Your task to perform on an android device: install app "Calculator" Image 0: 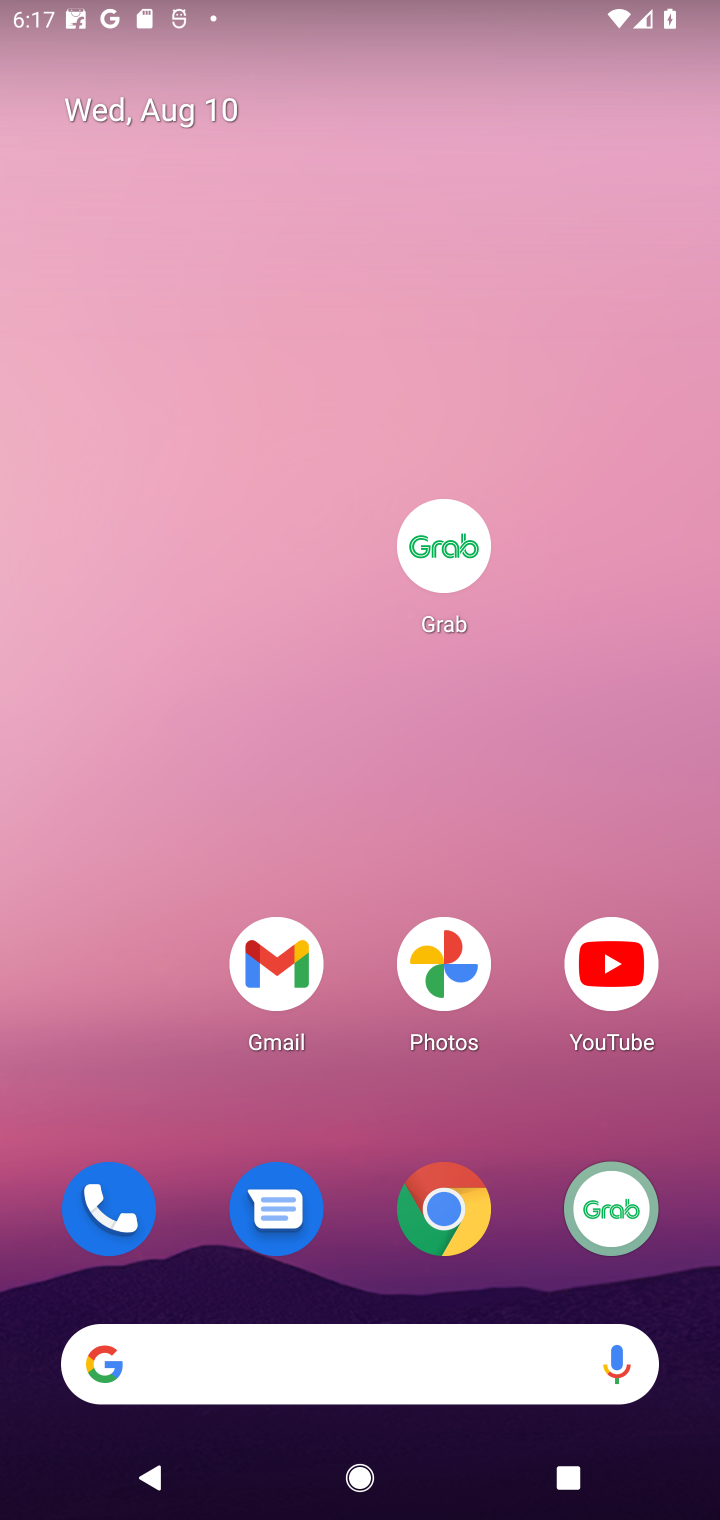
Step 0: drag from (552, 1274) to (464, 148)
Your task to perform on an android device: install app "Calculator" Image 1: 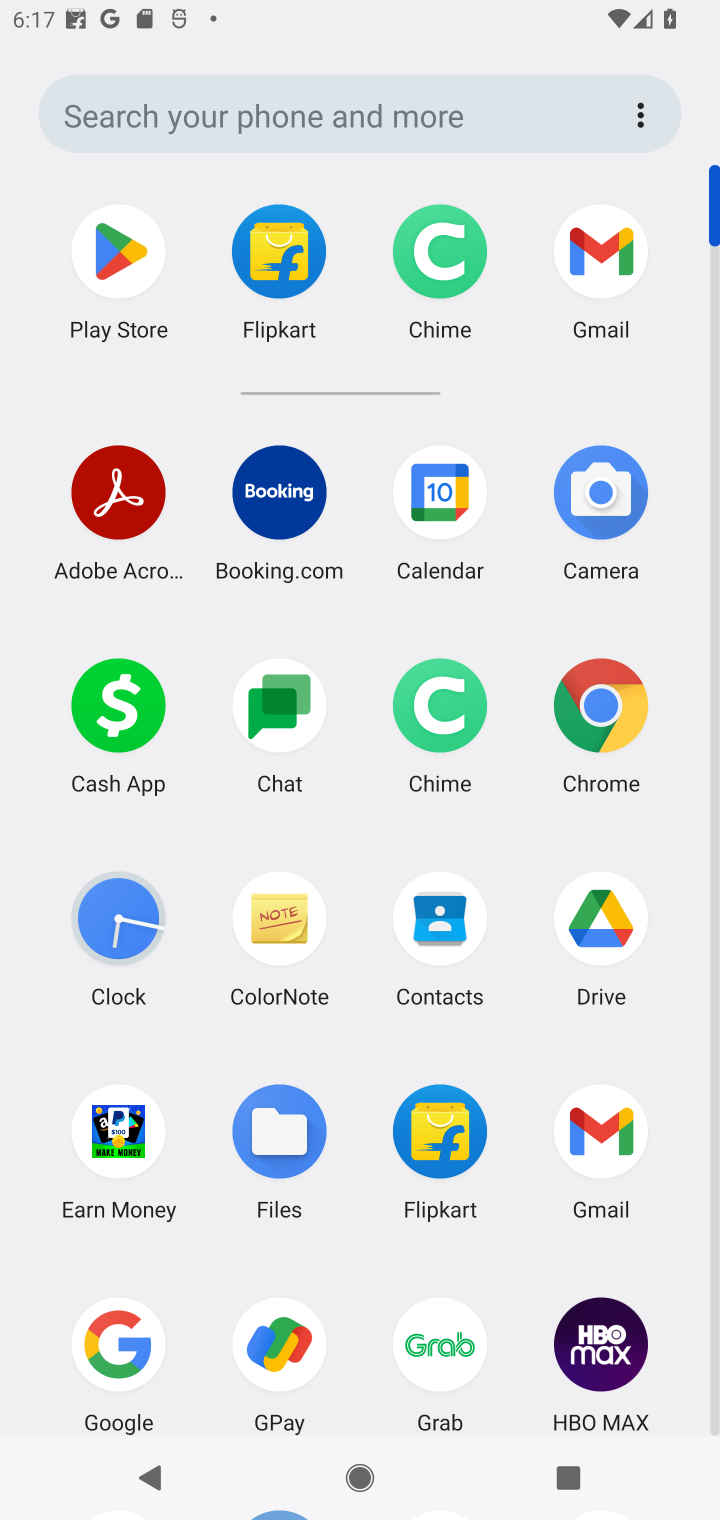
Step 1: click (144, 256)
Your task to perform on an android device: install app "Calculator" Image 2: 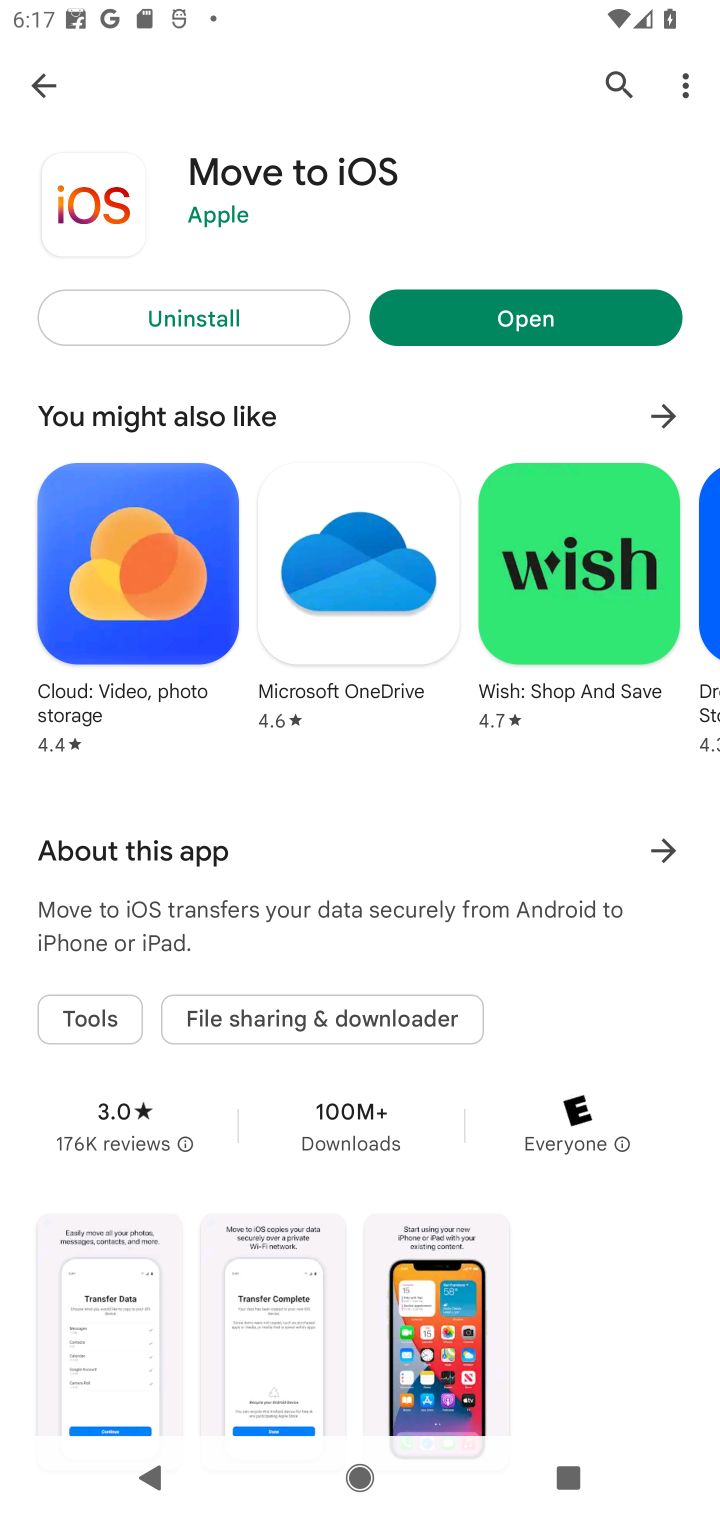
Step 2: click (608, 79)
Your task to perform on an android device: install app "Calculator" Image 3: 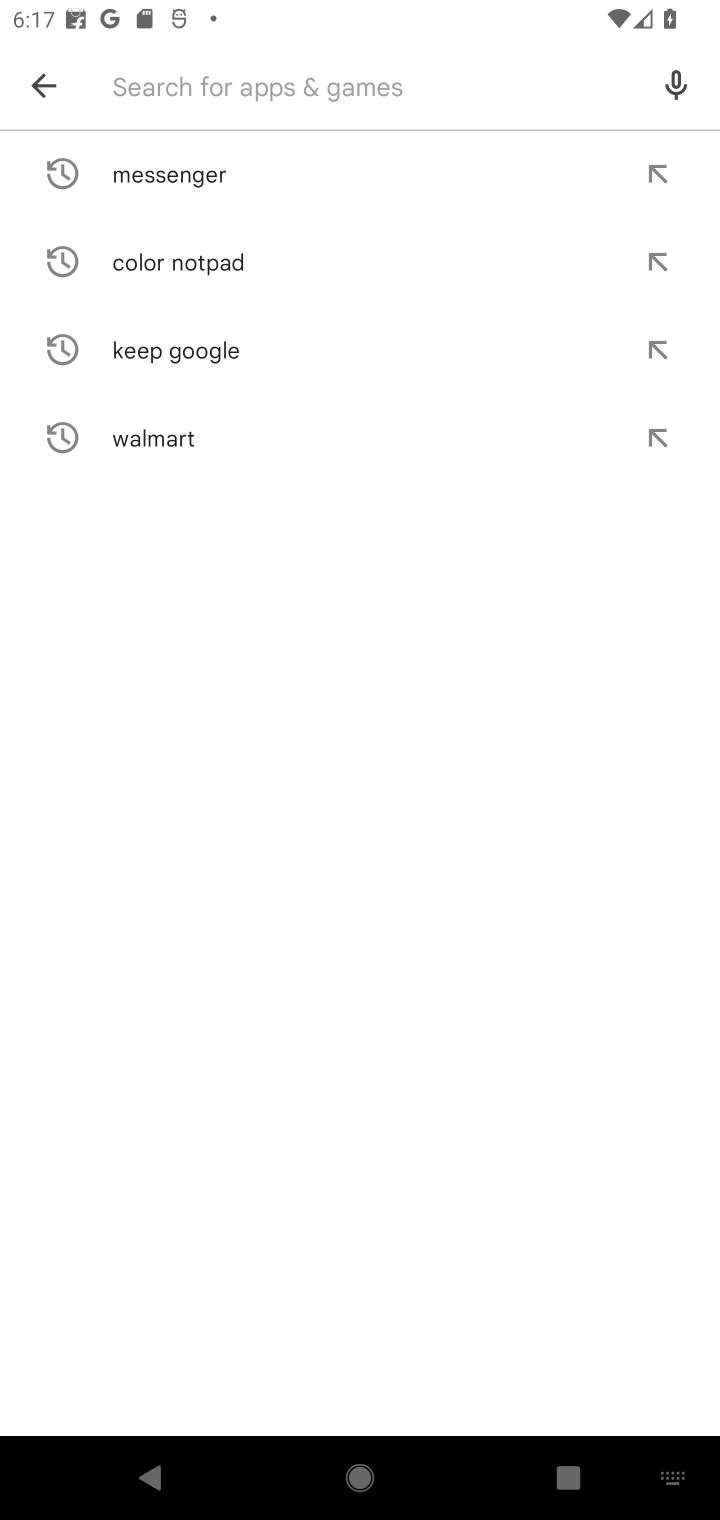
Step 3: type "calculator"
Your task to perform on an android device: install app "Calculator" Image 4: 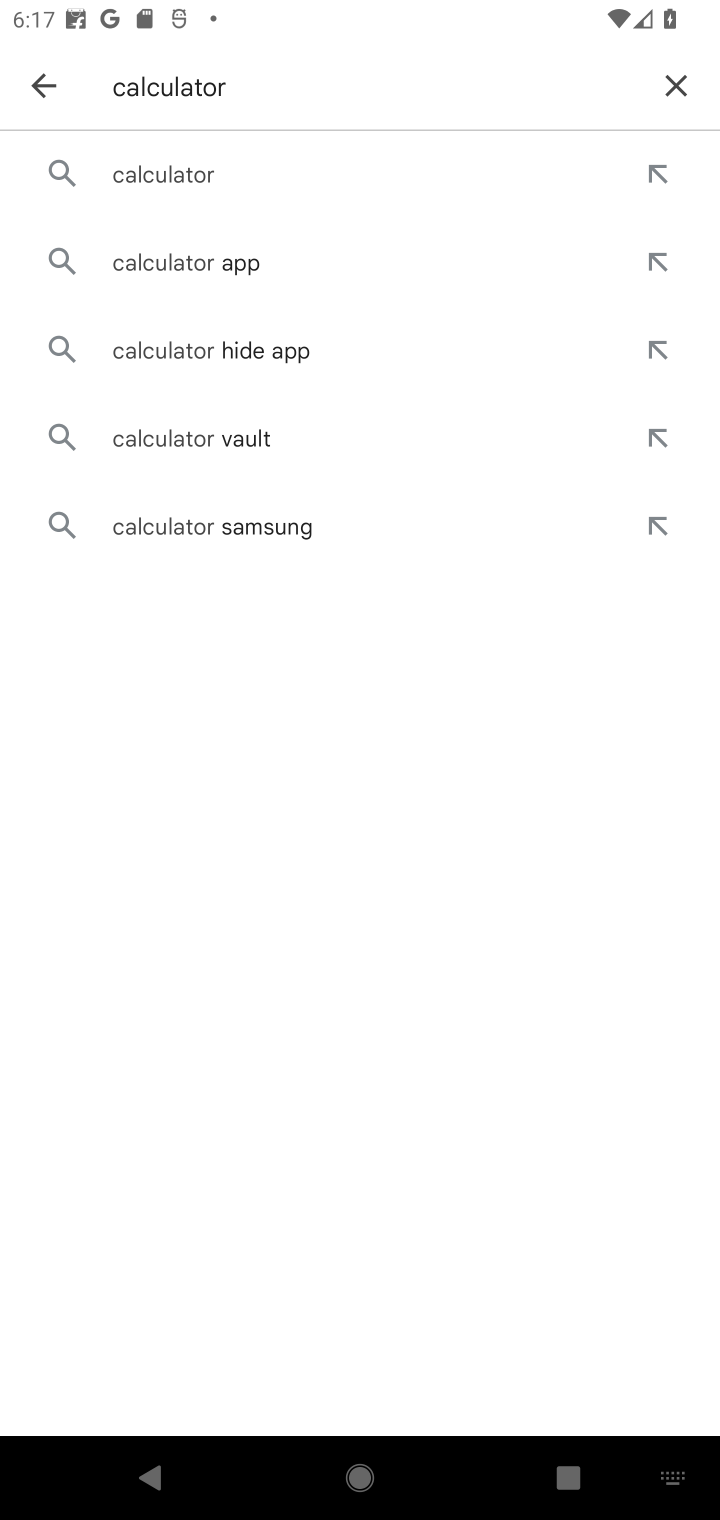
Step 4: click (246, 184)
Your task to perform on an android device: install app "Calculator" Image 5: 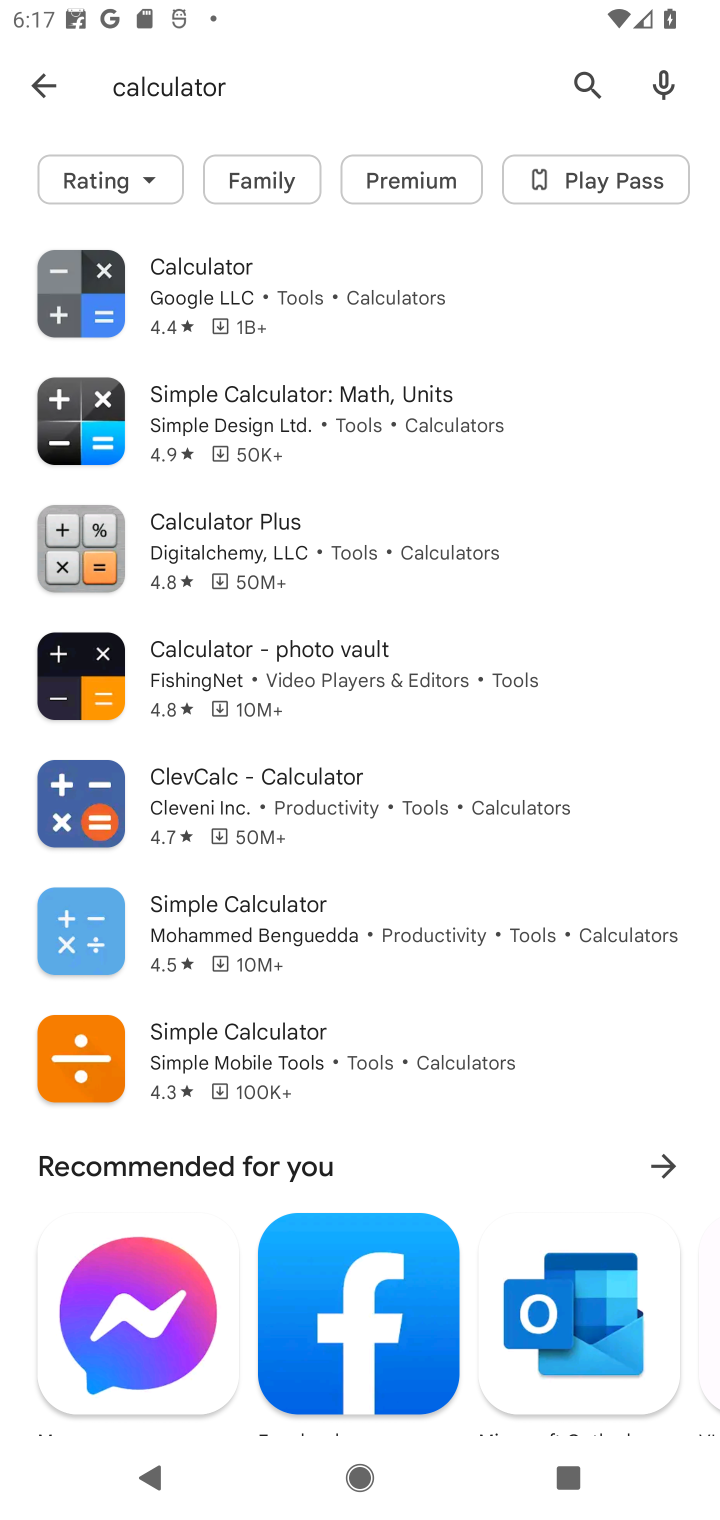
Step 5: click (416, 272)
Your task to perform on an android device: install app "Calculator" Image 6: 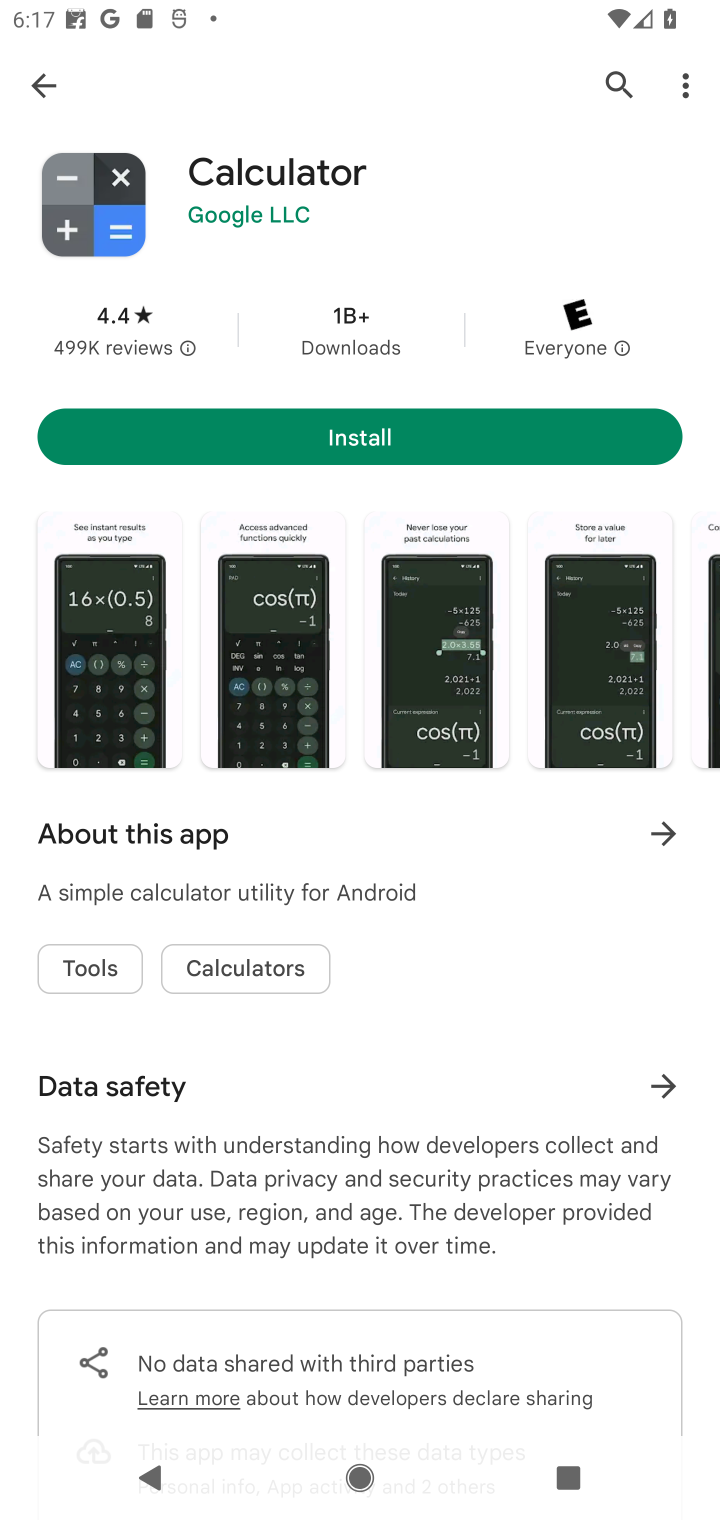
Step 6: click (461, 436)
Your task to perform on an android device: install app "Calculator" Image 7: 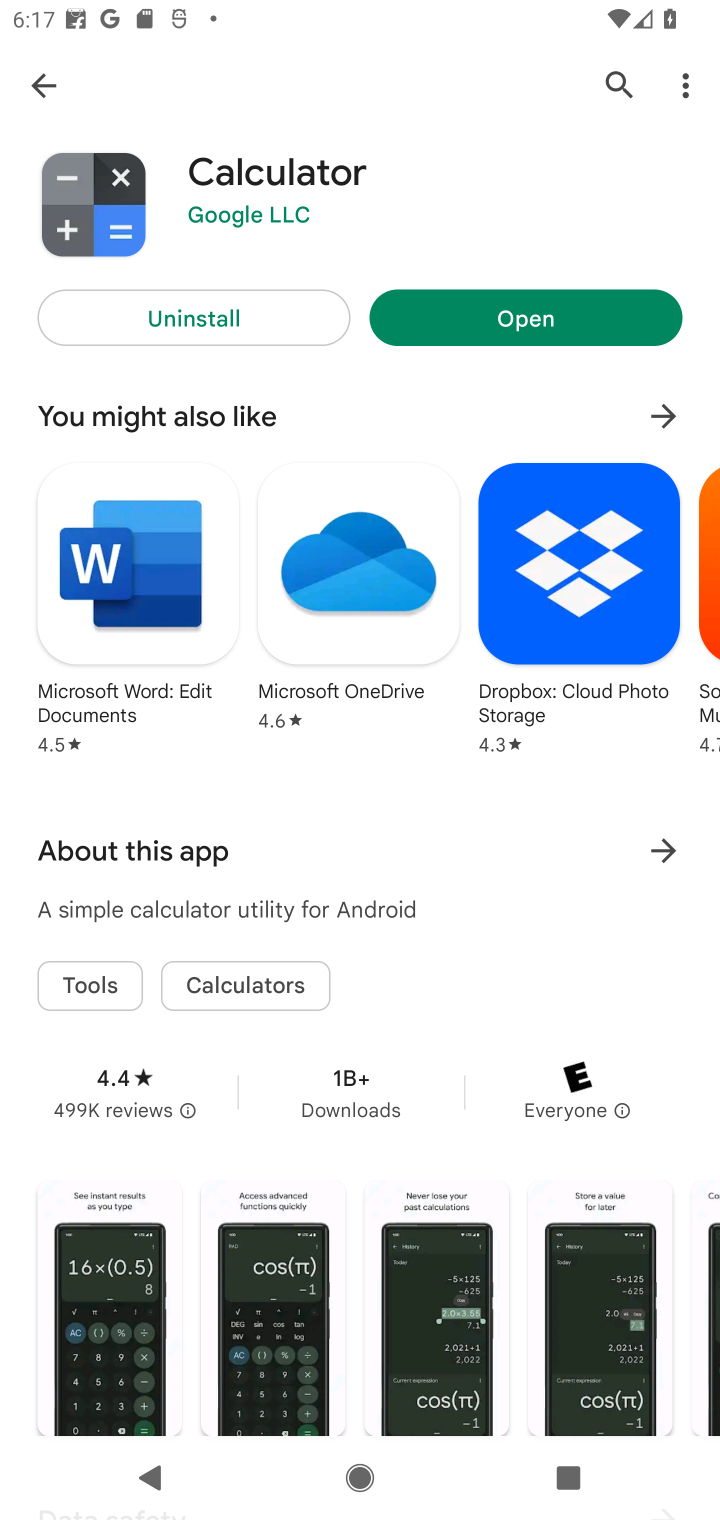
Step 7: click (602, 296)
Your task to perform on an android device: install app "Calculator" Image 8: 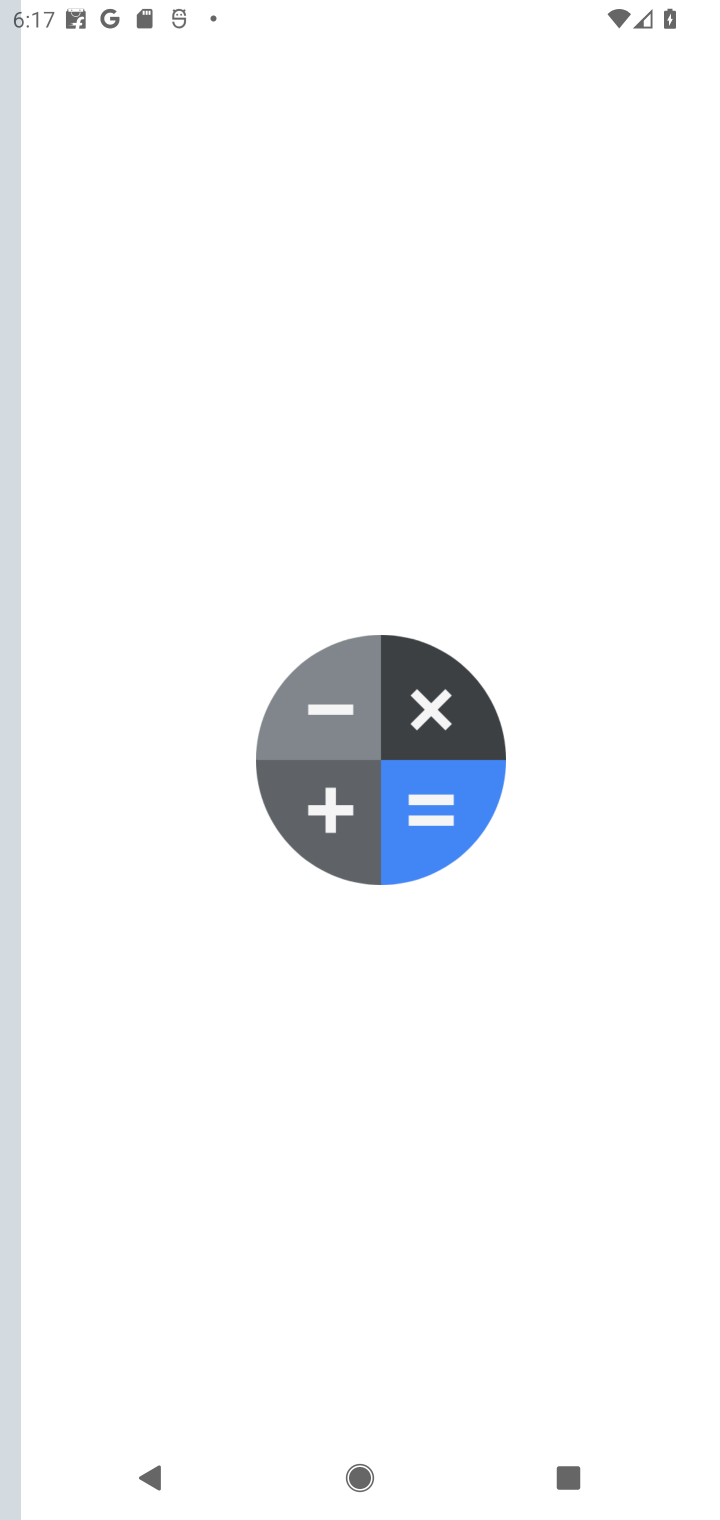
Step 8: task complete